Your task to perform on an android device: Open Google Maps and go to "Timeline" Image 0: 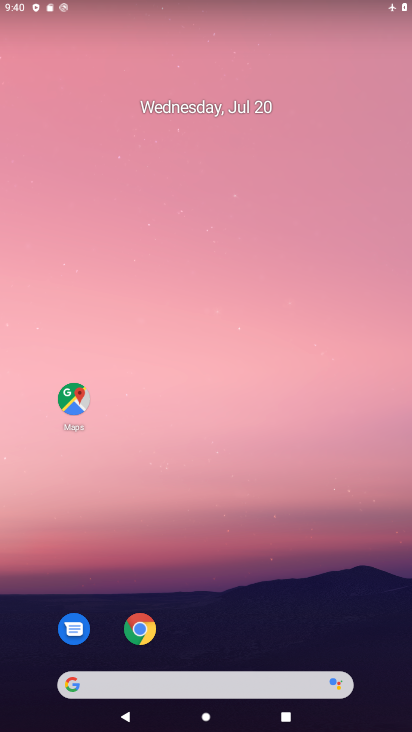
Step 0: drag from (296, 559) to (294, 11)
Your task to perform on an android device: Open Google Maps and go to "Timeline" Image 1: 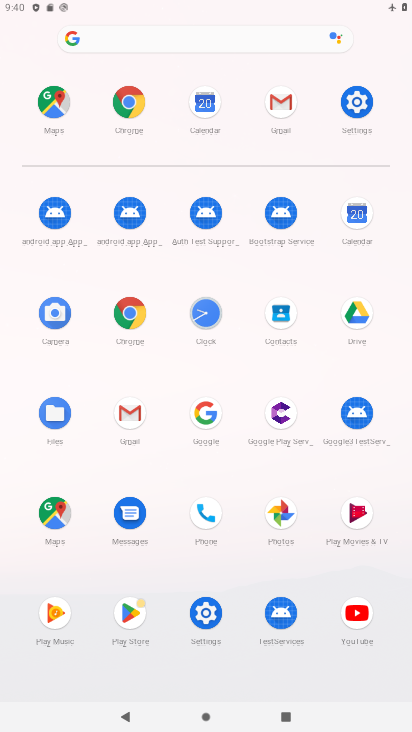
Step 1: click (55, 99)
Your task to perform on an android device: Open Google Maps and go to "Timeline" Image 2: 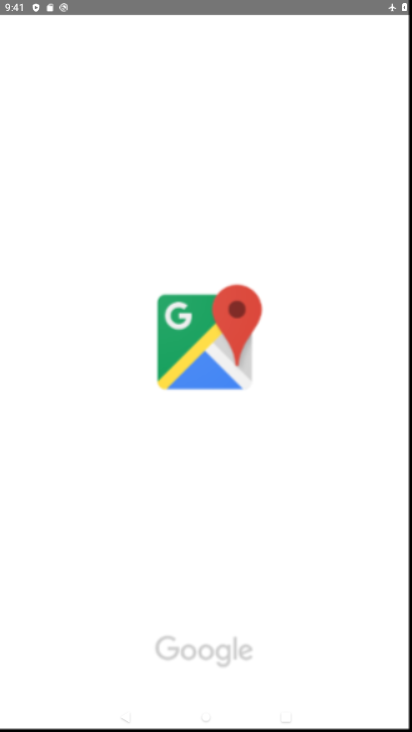
Step 2: task complete